Your task to perform on an android device: Open privacy settings Image 0: 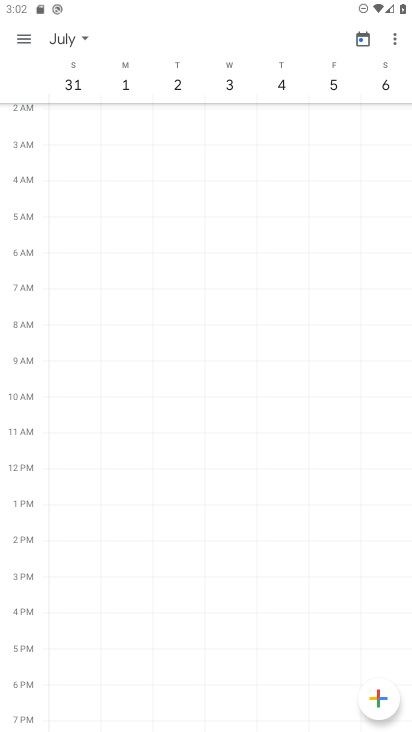
Step 0: press home button
Your task to perform on an android device: Open privacy settings Image 1: 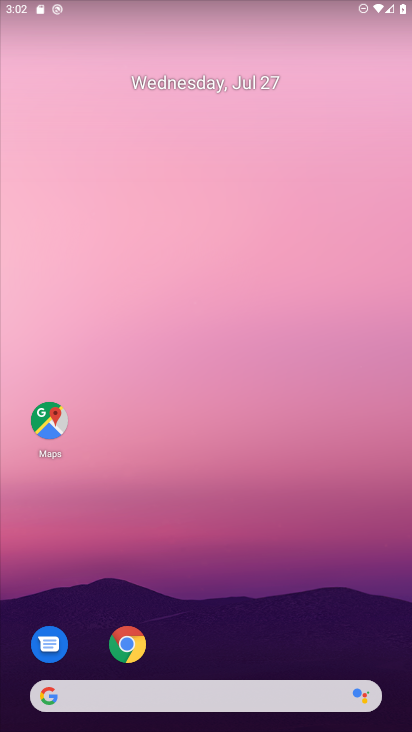
Step 1: drag from (212, 653) to (263, 23)
Your task to perform on an android device: Open privacy settings Image 2: 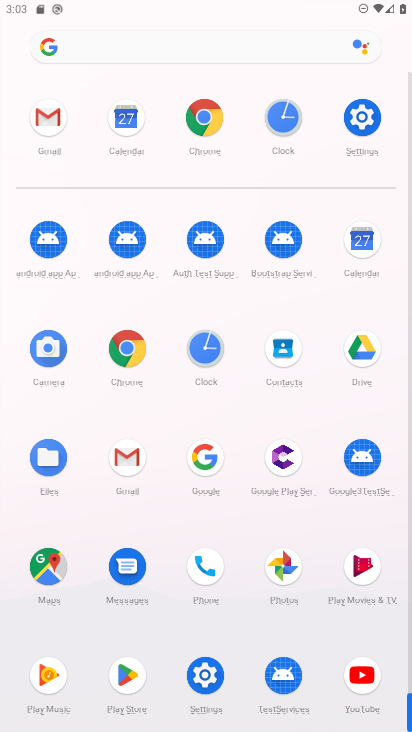
Step 2: click (201, 676)
Your task to perform on an android device: Open privacy settings Image 3: 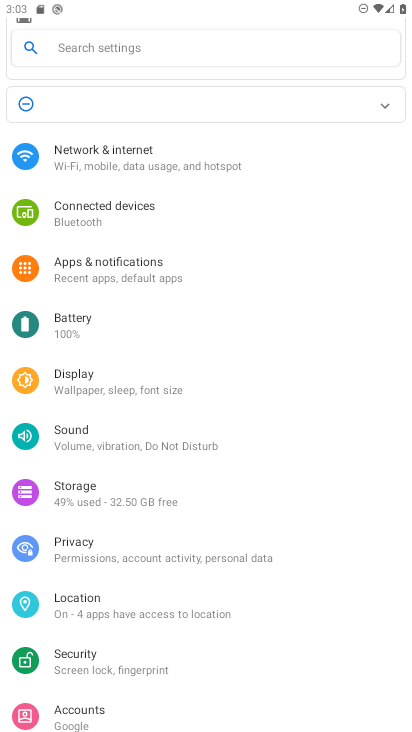
Step 3: click (138, 555)
Your task to perform on an android device: Open privacy settings Image 4: 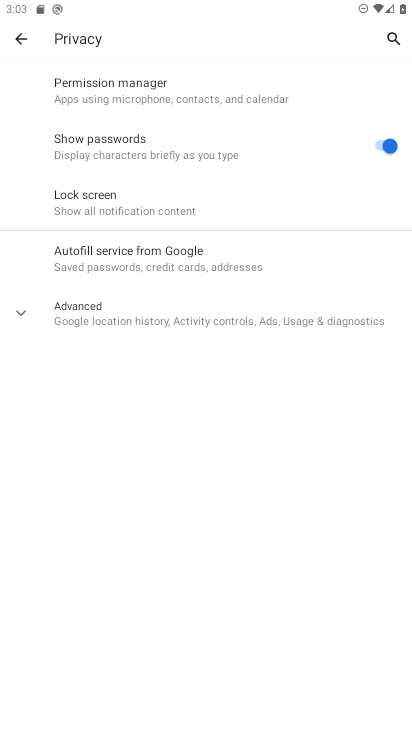
Step 4: task complete